Your task to perform on an android device: Go to CNN.com Image 0: 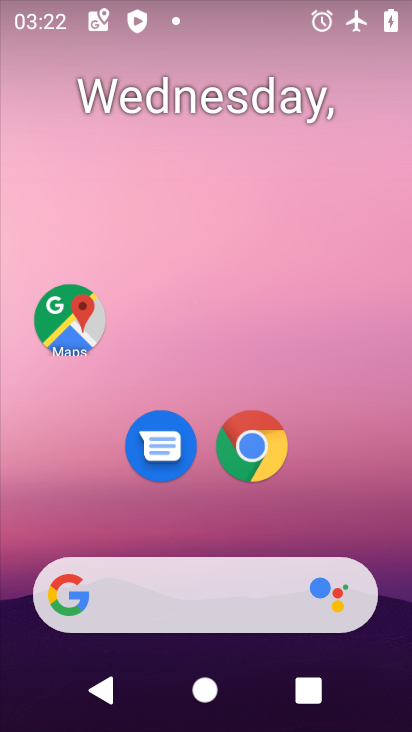
Step 0: click (229, 451)
Your task to perform on an android device: Go to CNN.com Image 1: 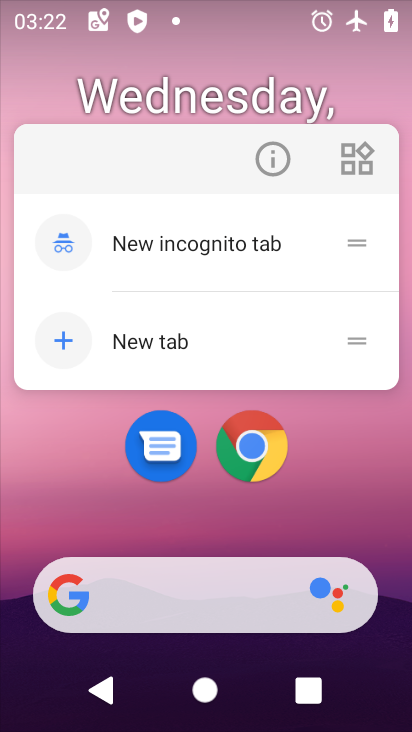
Step 1: click (240, 423)
Your task to perform on an android device: Go to CNN.com Image 2: 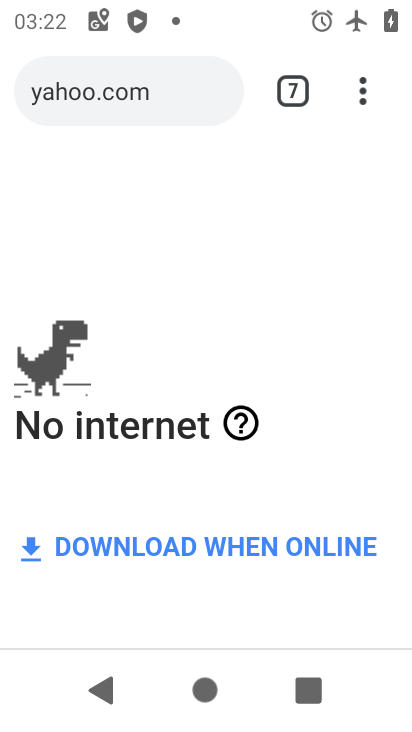
Step 2: click (287, 95)
Your task to perform on an android device: Go to CNN.com Image 3: 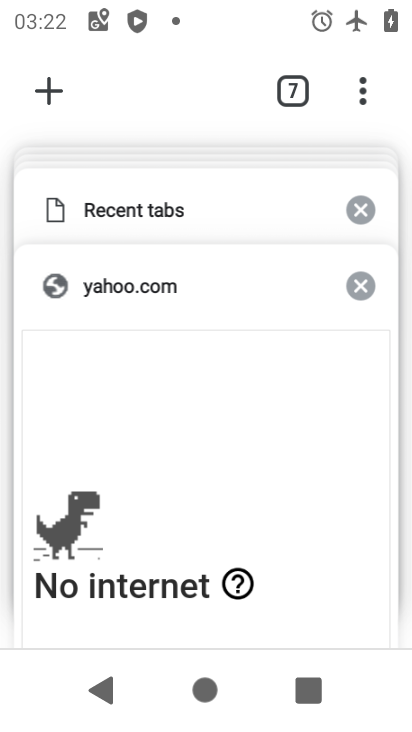
Step 3: click (37, 97)
Your task to perform on an android device: Go to CNN.com Image 4: 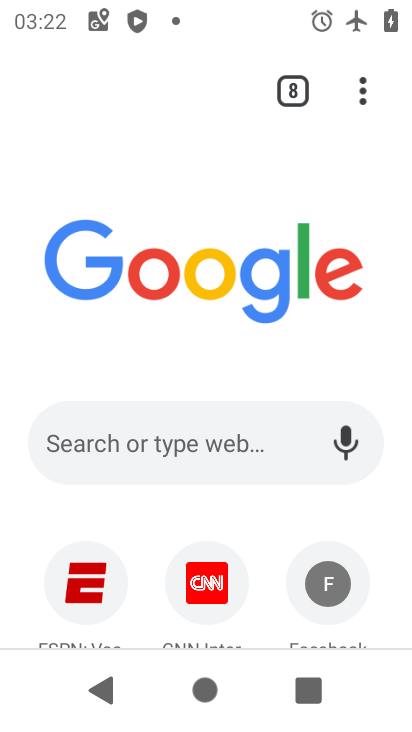
Step 4: click (210, 568)
Your task to perform on an android device: Go to CNN.com Image 5: 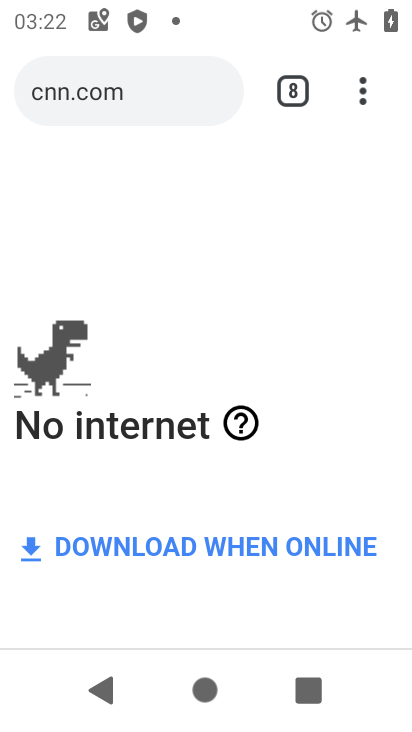
Step 5: task complete